Your task to perform on an android device: open app "Mercado Libre" Image 0: 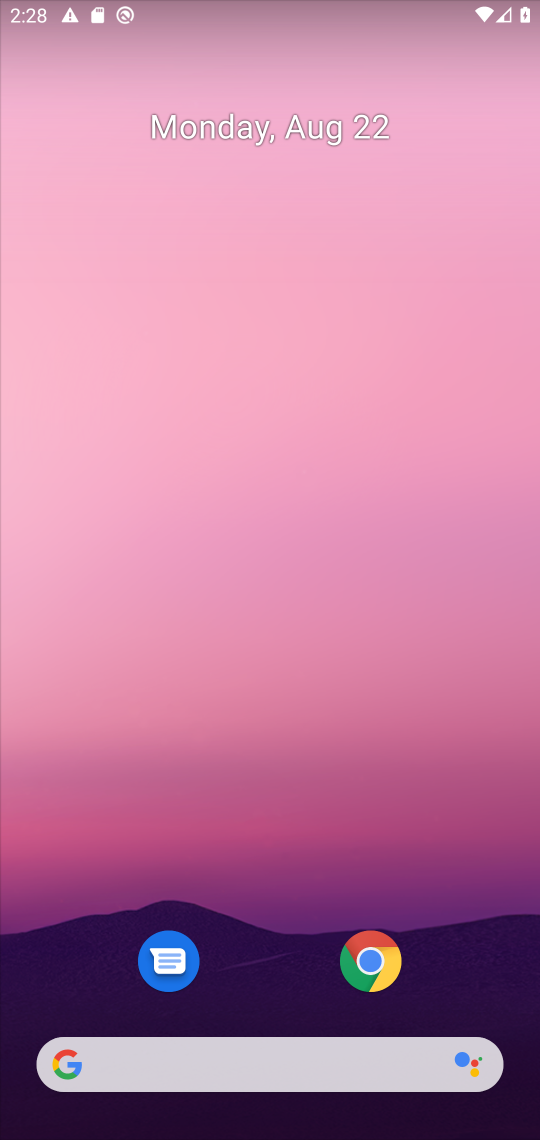
Step 0: press home button
Your task to perform on an android device: open app "Mercado Libre" Image 1: 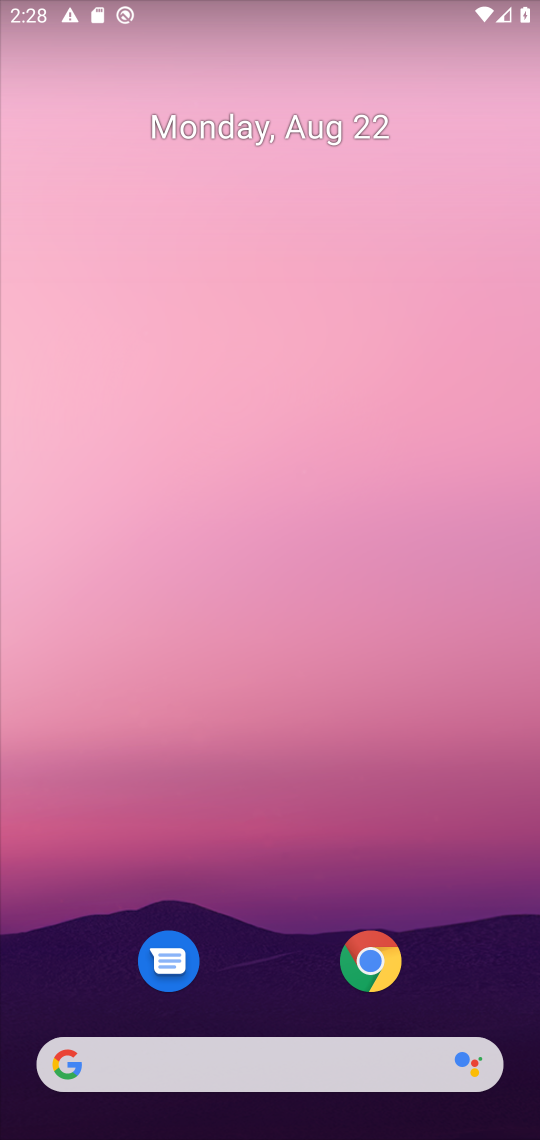
Step 1: drag from (470, 983) to (475, 227)
Your task to perform on an android device: open app "Mercado Libre" Image 2: 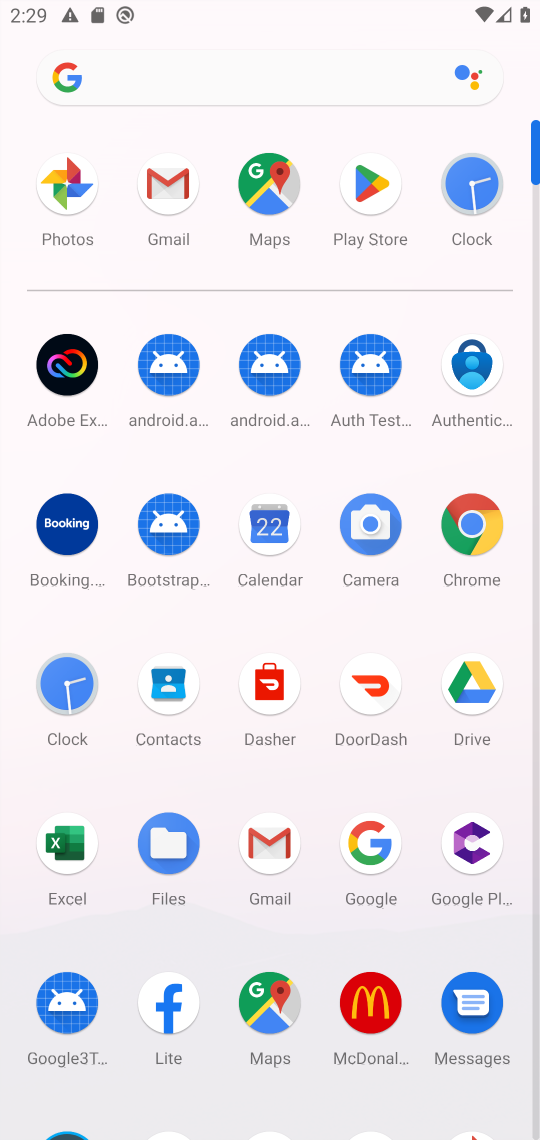
Step 2: click (367, 177)
Your task to perform on an android device: open app "Mercado Libre" Image 3: 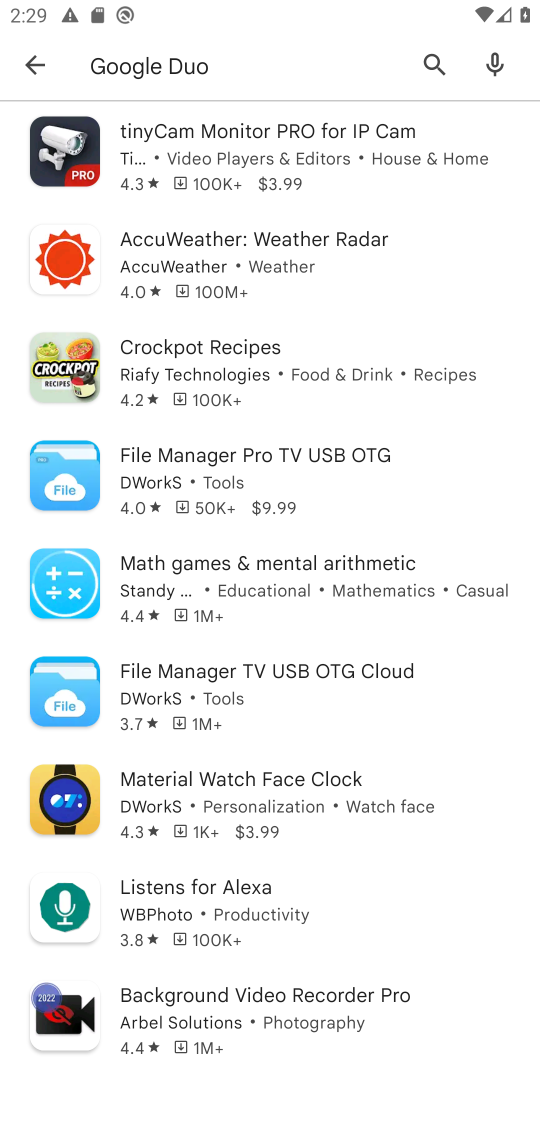
Step 3: press back button
Your task to perform on an android device: open app "Mercado Libre" Image 4: 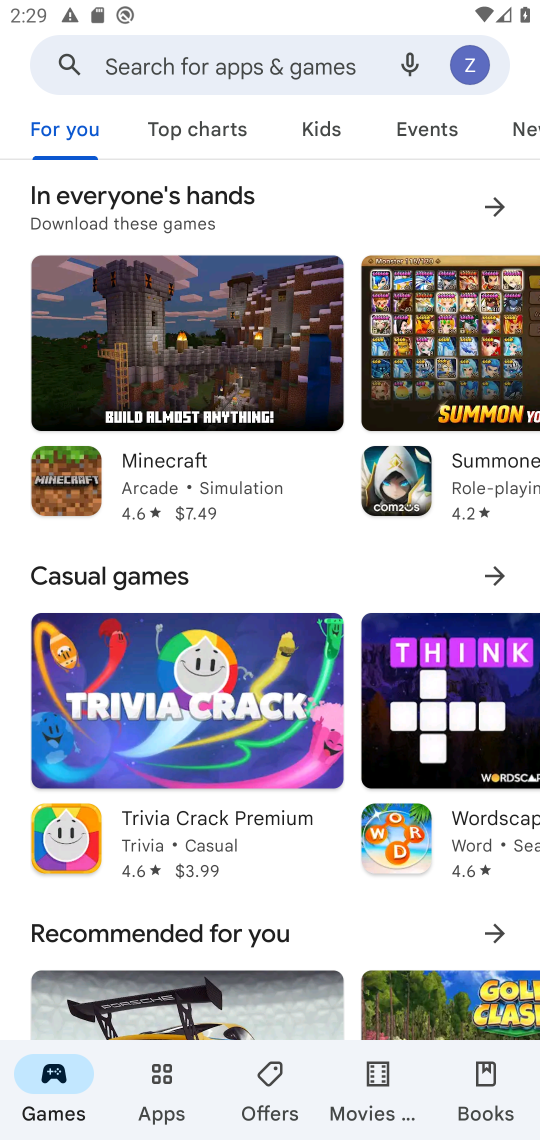
Step 4: click (319, 52)
Your task to perform on an android device: open app "Mercado Libre" Image 5: 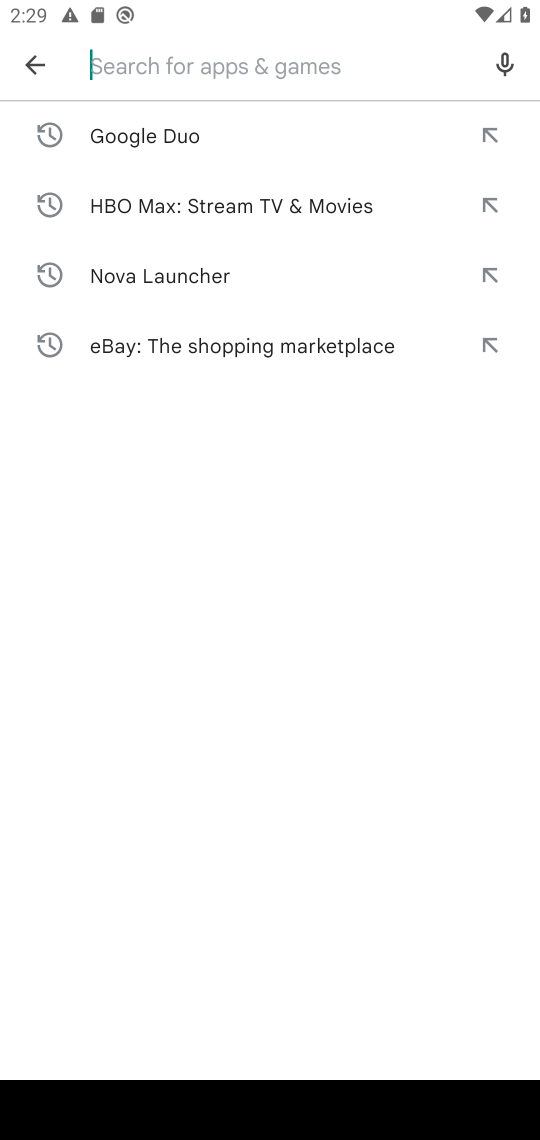
Step 5: type "Mercado Libre"
Your task to perform on an android device: open app "Mercado Libre" Image 6: 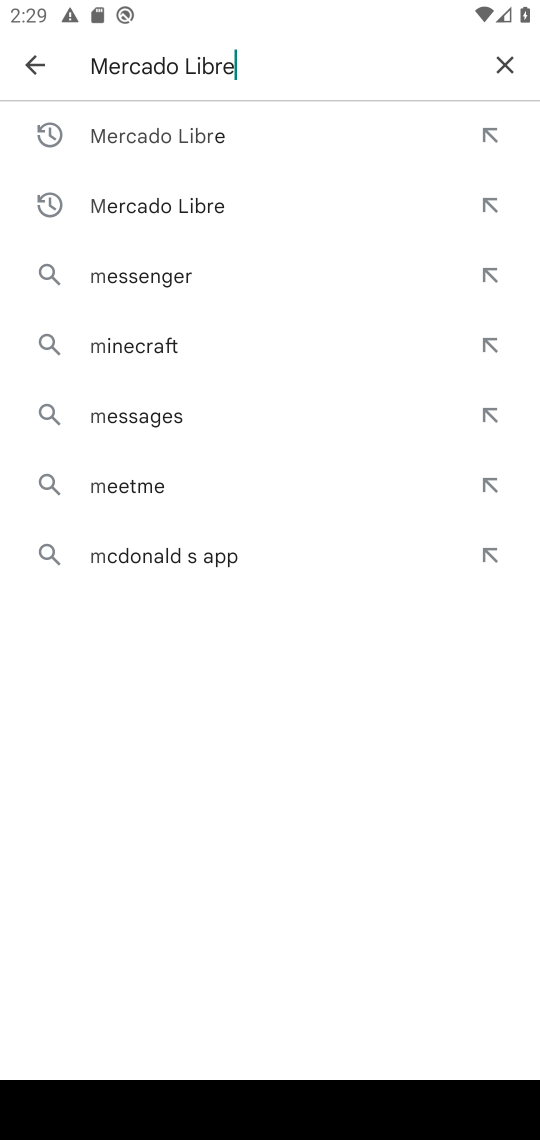
Step 6: press enter
Your task to perform on an android device: open app "Mercado Libre" Image 7: 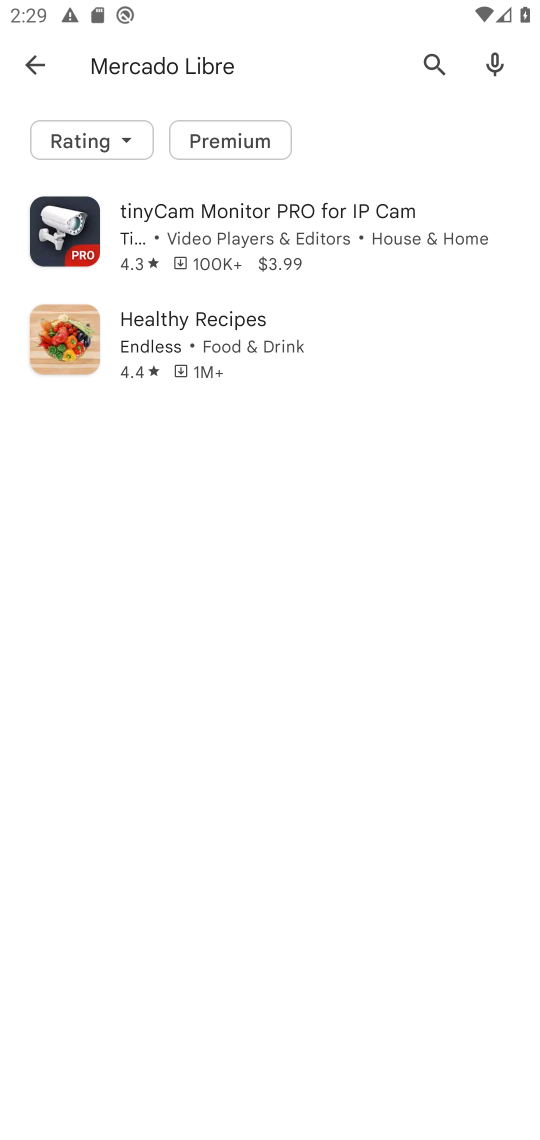
Step 7: task complete